Your task to perform on an android device: add a label to a message in the gmail app Image 0: 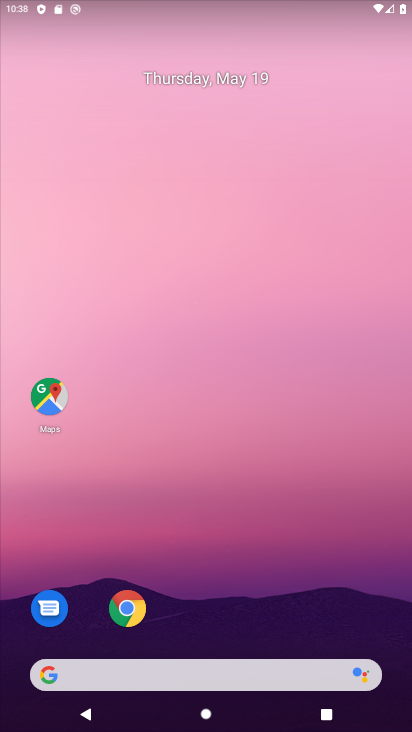
Step 0: drag from (394, 682) to (340, 237)
Your task to perform on an android device: add a label to a message in the gmail app Image 1: 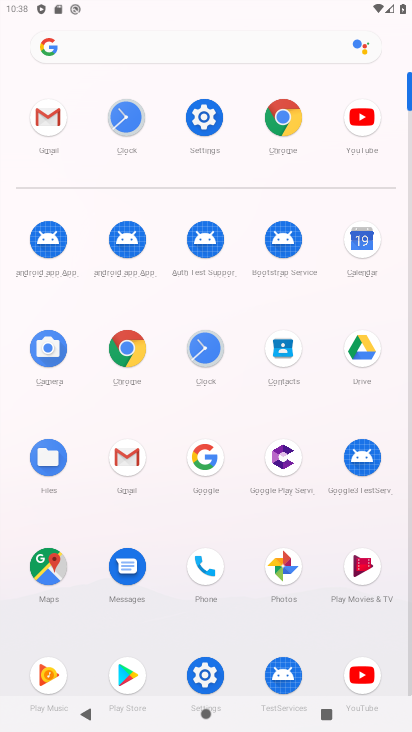
Step 1: click (120, 455)
Your task to perform on an android device: add a label to a message in the gmail app Image 2: 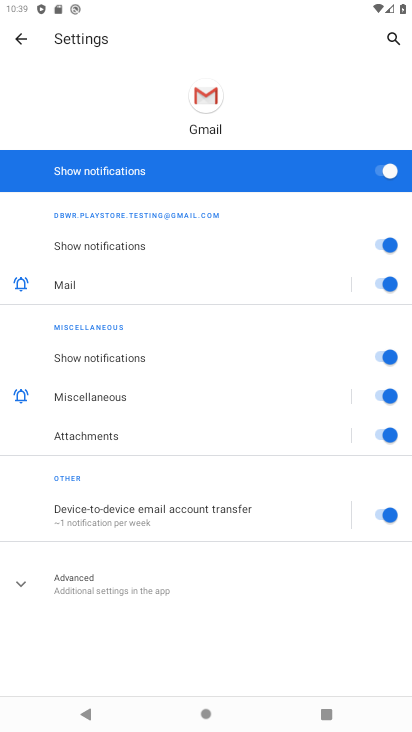
Step 2: click (16, 41)
Your task to perform on an android device: add a label to a message in the gmail app Image 3: 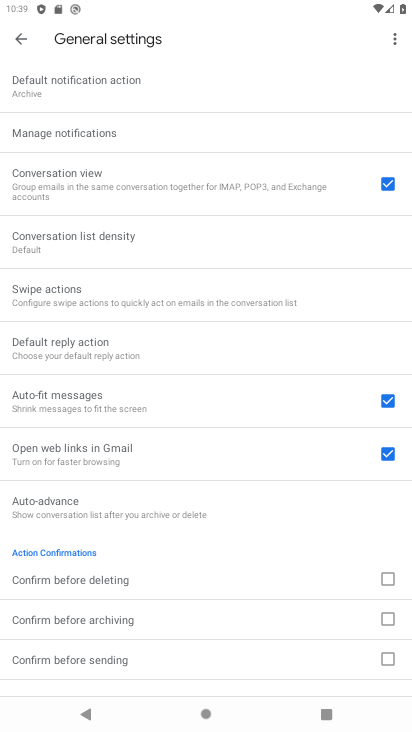
Step 3: drag from (216, 110) to (258, 407)
Your task to perform on an android device: add a label to a message in the gmail app Image 4: 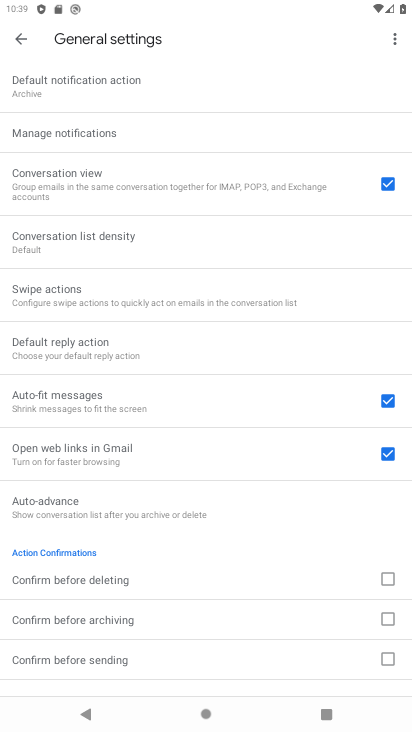
Step 4: click (17, 38)
Your task to perform on an android device: add a label to a message in the gmail app Image 5: 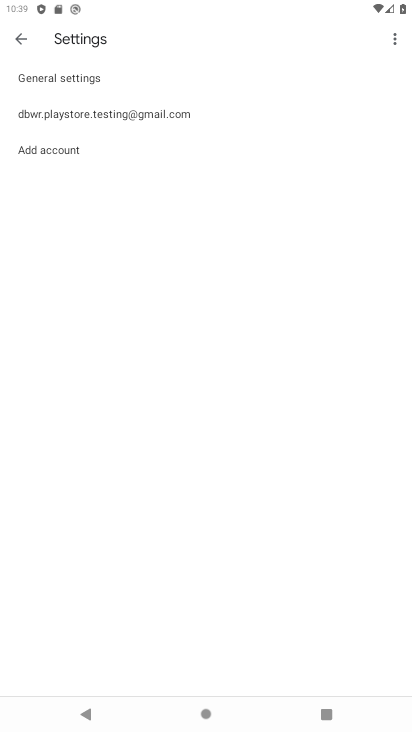
Step 5: click (17, 41)
Your task to perform on an android device: add a label to a message in the gmail app Image 6: 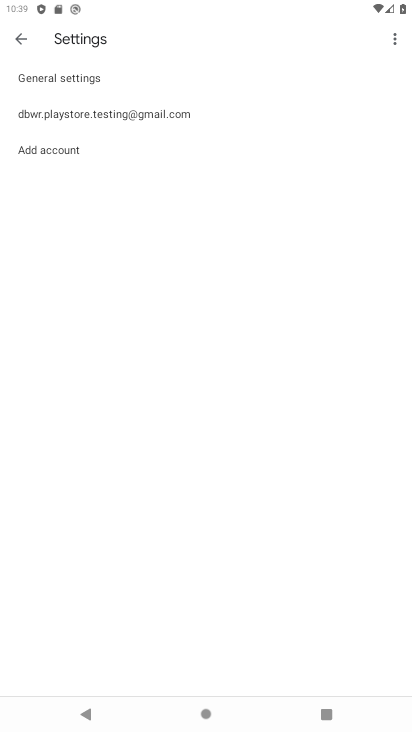
Step 6: click (10, 23)
Your task to perform on an android device: add a label to a message in the gmail app Image 7: 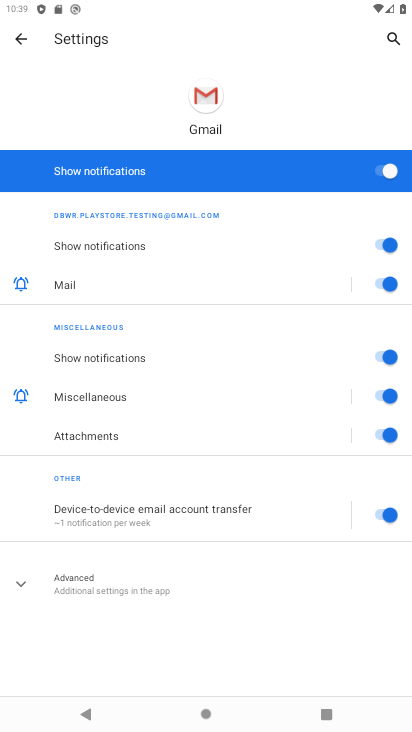
Step 7: click (9, 36)
Your task to perform on an android device: add a label to a message in the gmail app Image 8: 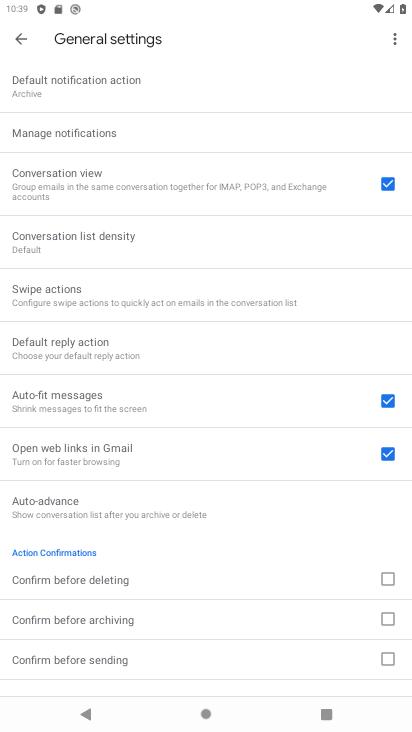
Step 8: click (11, 41)
Your task to perform on an android device: add a label to a message in the gmail app Image 9: 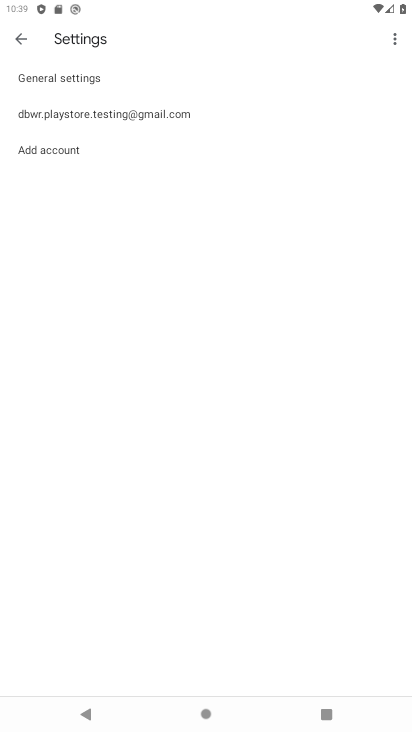
Step 9: click (11, 41)
Your task to perform on an android device: add a label to a message in the gmail app Image 10: 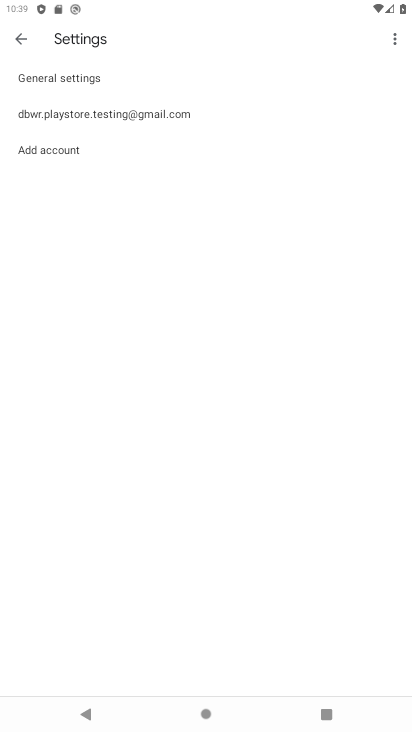
Step 10: click (11, 41)
Your task to perform on an android device: add a label to a message in the gmail app Image 11: 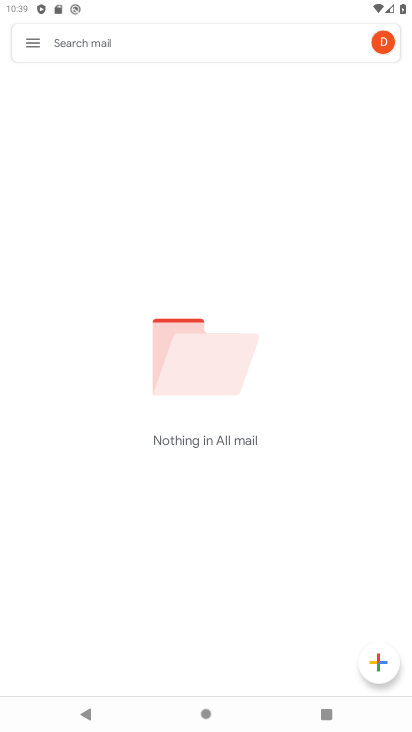
Step 11: click (39, 39)
Your task to perform on an android device: add a label to a message in the gmail app Image 12: 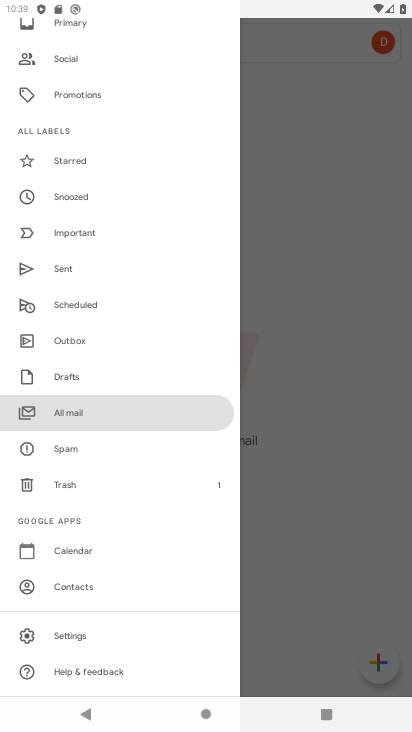
Step 12: drag from (138, 107) to (165, 333)
Your task to perform on an android device: add a label to a message in the gmail app Image 13: 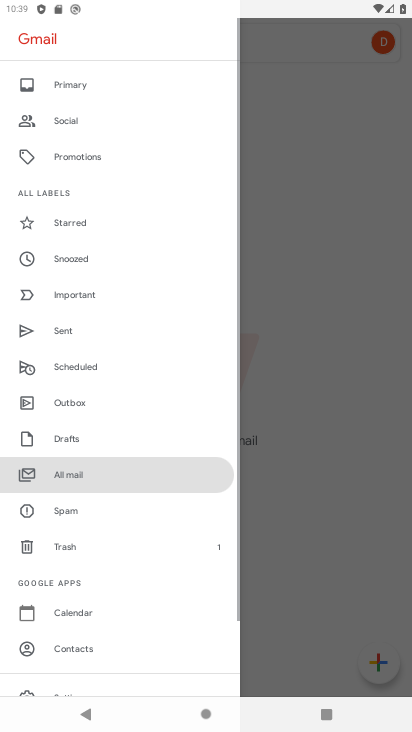
Step 13: click (61, 80)
Your task to perform on an android device: add a label to a message in the gmail app Image 14: 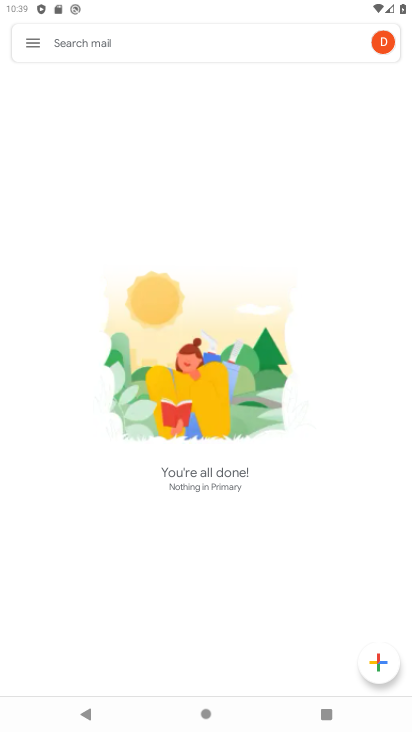
Step 14: task complete